Your task to perform on an android device: toggle airplane mode Image 0: 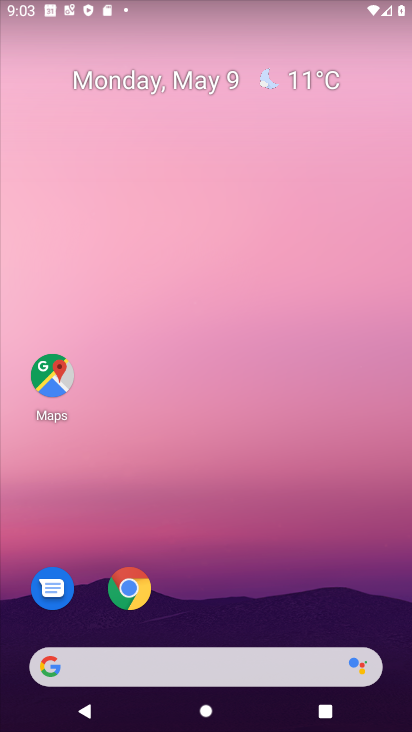
Step 0: drag from (205, 669) to (283, 139)
Your task to perform on an android device: toggle airplane mode Image 1: 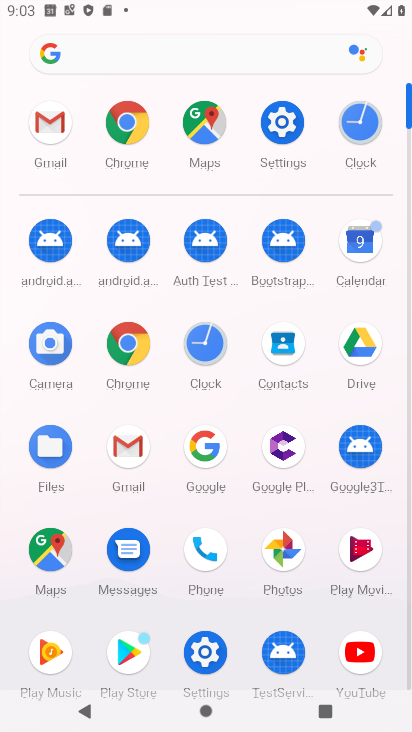
Step 1: click (280, 134)
Your task to perform on an android device: toggle airplane mode Image 2: 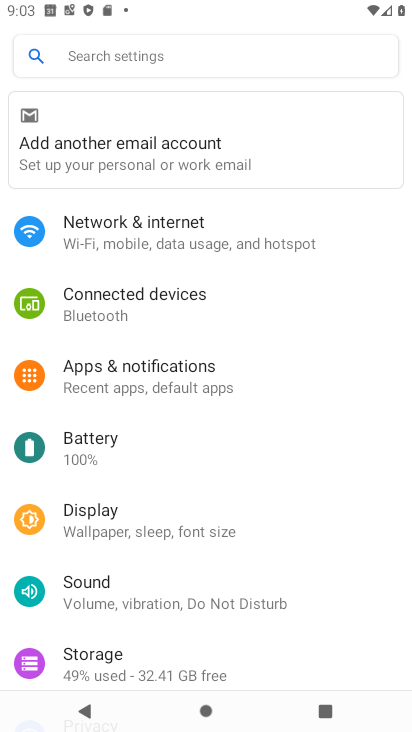
Step 2: click (144, 236)
Your task to perform on an android device: toggle airplane mode Image 3: 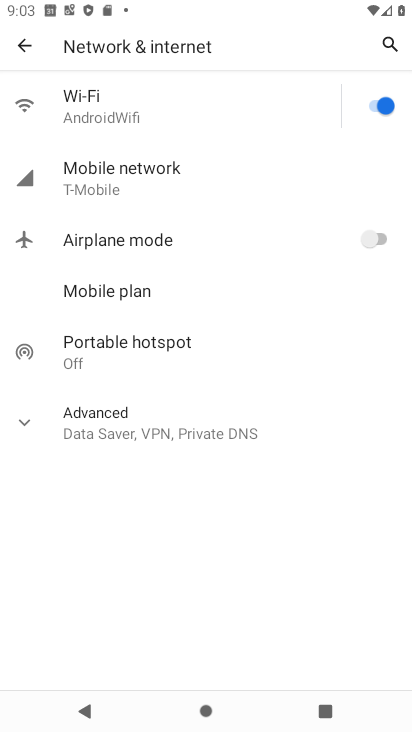
Step 3: click (384, 241)
Your task to perform on an android device: toggle airplane mode Image 4: 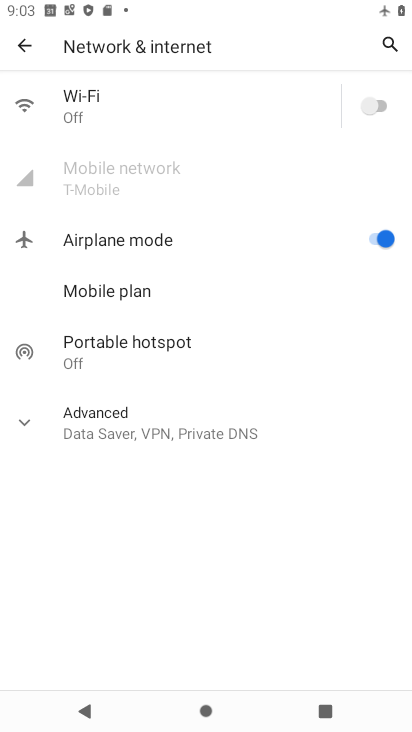
Step 4: task complete